Your task to perform on an android device: What is the news today? Image 0: 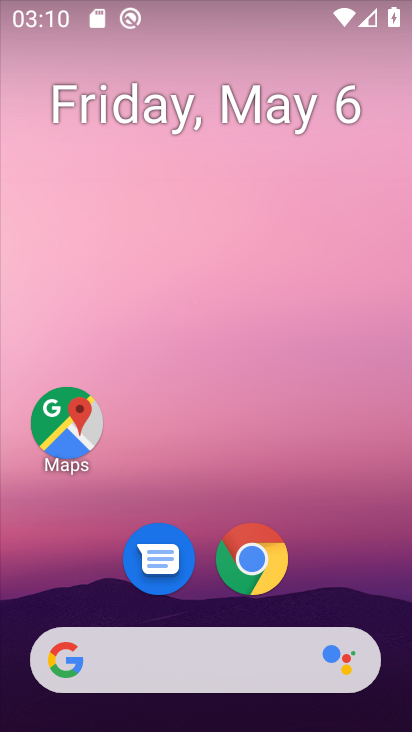
Step 0: drag from (303, 619) to (302, 123)
Your task to perform on an android device: What is the news today? Image 1: 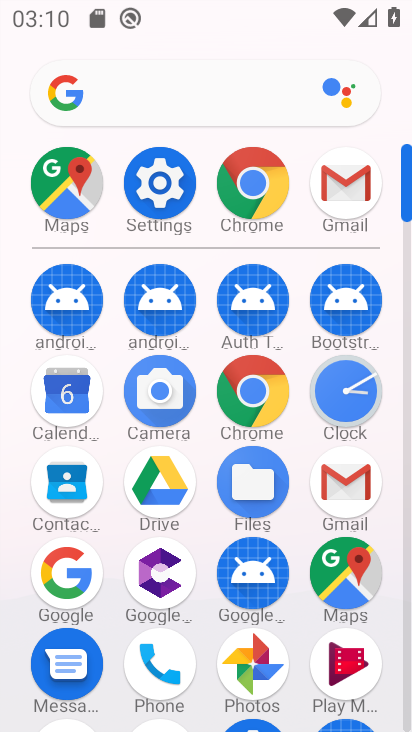
Step 1: click (276, 391)
Your task to perform on an android device: What is the news today? Image 2: 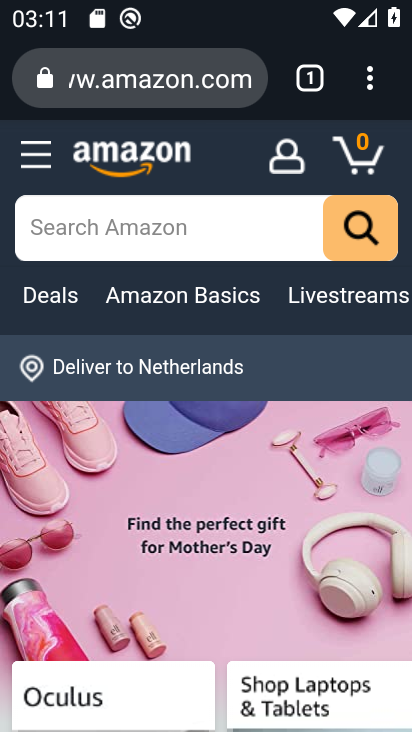
Step 2: type "news today"
Your task to perform on an android device: What is the news today? Image 3: 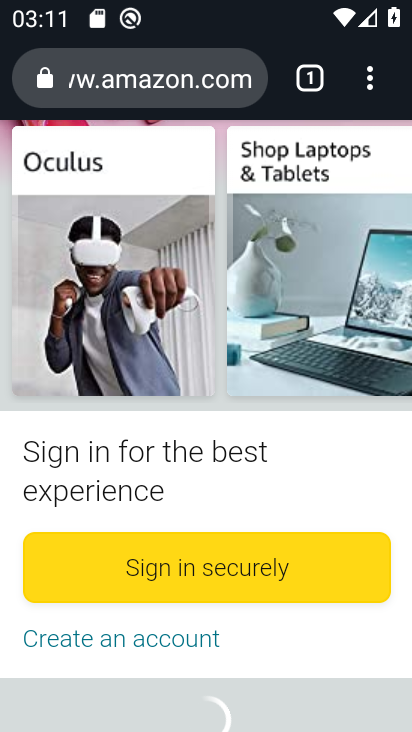
Step 3: click (198, 70)
Your task to perform on an android device: What is the news today? Image 4: 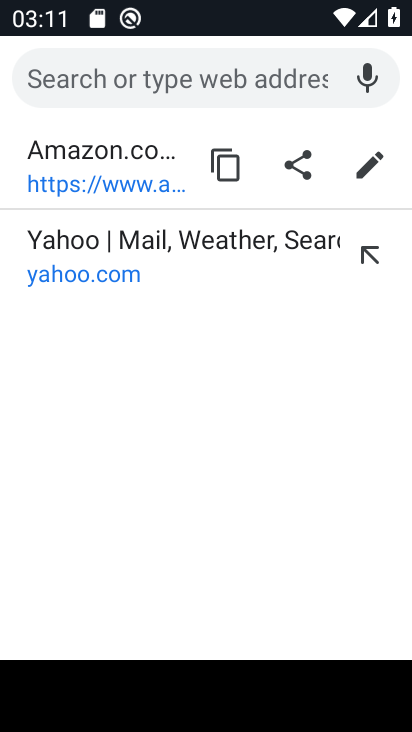
Step 4: type "news today"
Your task to perform on an android device: What is the news today? Image 5: 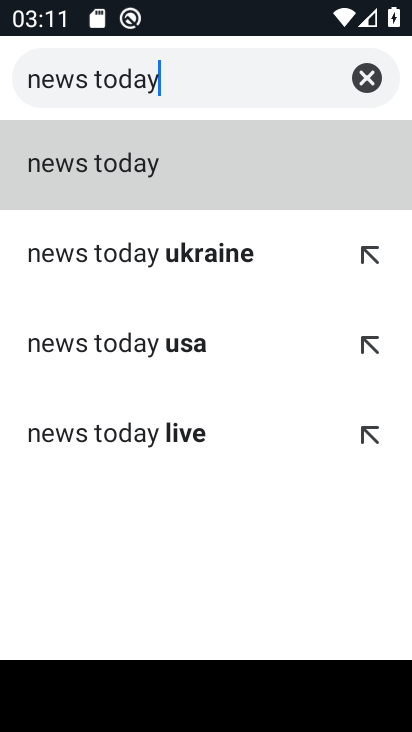
Step 5: click (270, 167)
Your task to perform on an android device: What is the news today? Image 6: 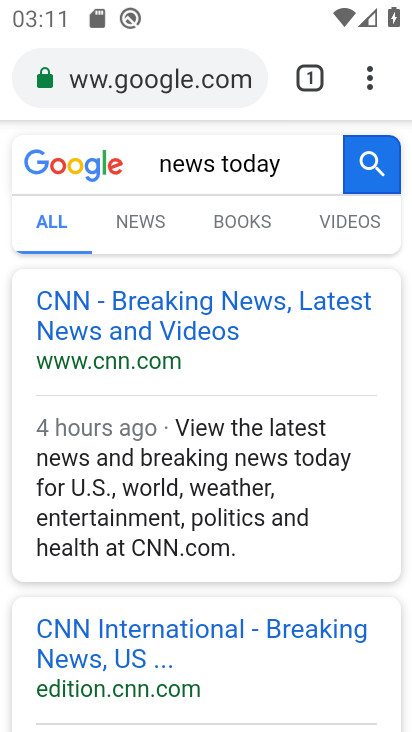
Step 6: task complete